Your task to perform on an android device: delete browsing data in the chrome app Image 0: 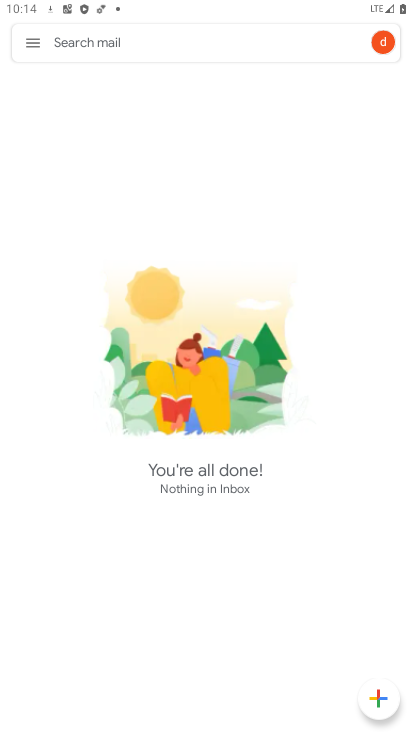
Step 0: press home button
Your task to perform on an android device: delete browsing data in the chrome app Image 1: 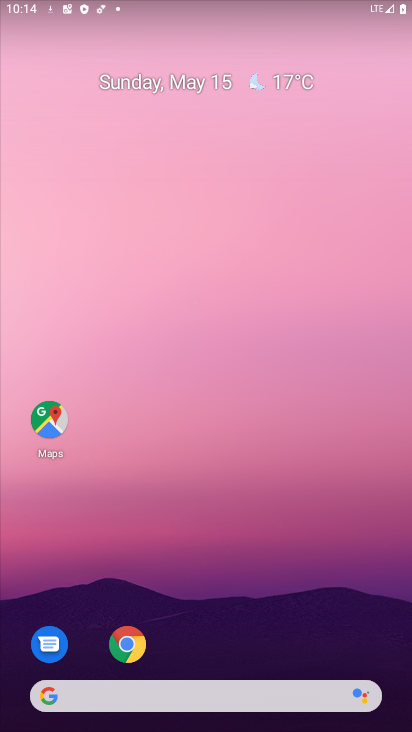
Step 1: drag from (275, 708) to (193, 222)
Your task to perform on an android device: delete browsing data in the chrome app Image 2: 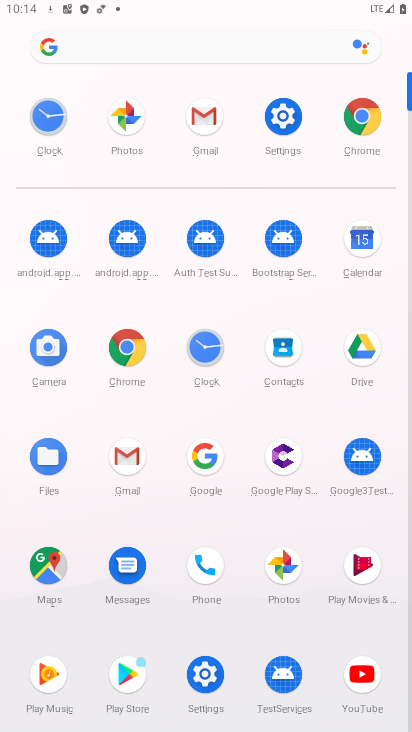
Step 2: click (115, 337)
Your task to perform on an android device: delete browsing data in the chrome app Image 3: 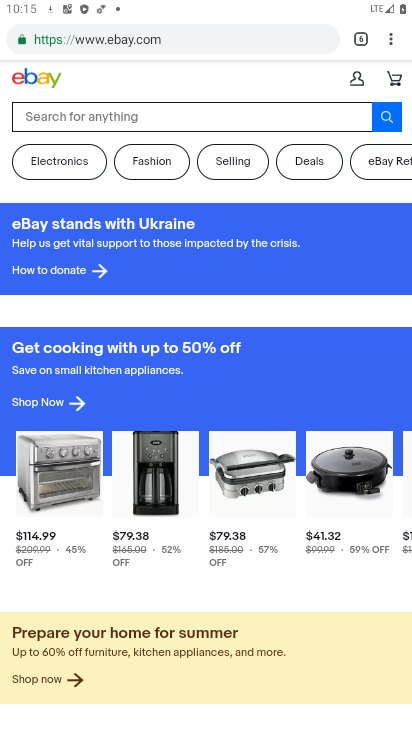
Step 3: click (384, 39)
Your task to perform on an android device: delete browsing data in the chrome app Image 4: 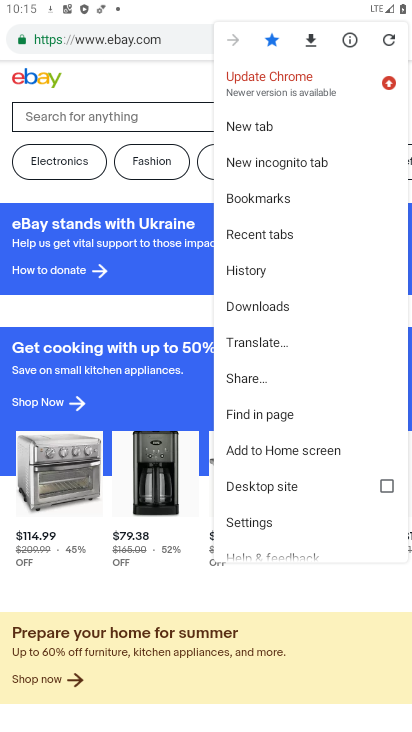
Step 4: click (257, 515)
Your task to perform on an android device: delete browsing data in the chrome app Image 5: 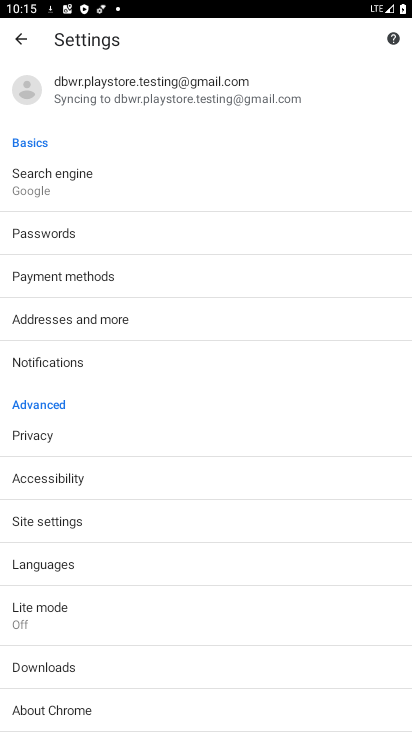
Step 5: click (77, 443)
Your task to perform on an android device: delete browsing data in the chrome app Image 6: 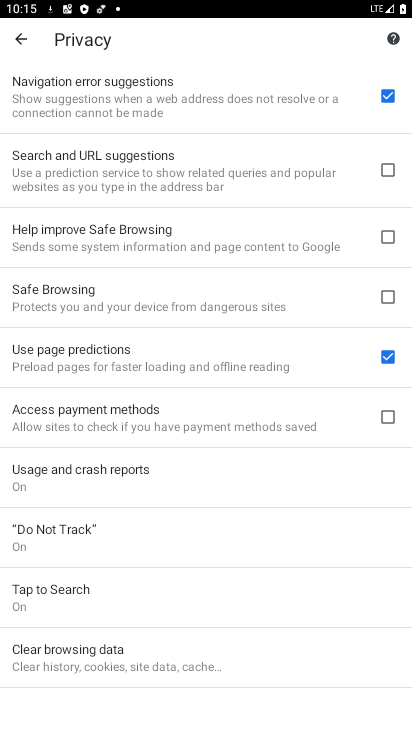
Step 6: drag from (145, 529) to (172, 385)
Your task to perform on an android device: delete browsing data in the chrome app Image 7: 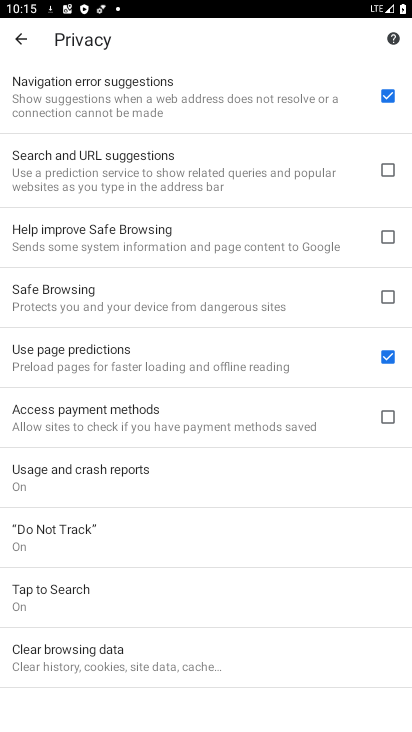
Step 7: click (98, 669)
Your task to perform on an android device: delete browsing data in the chrome app Image 8: 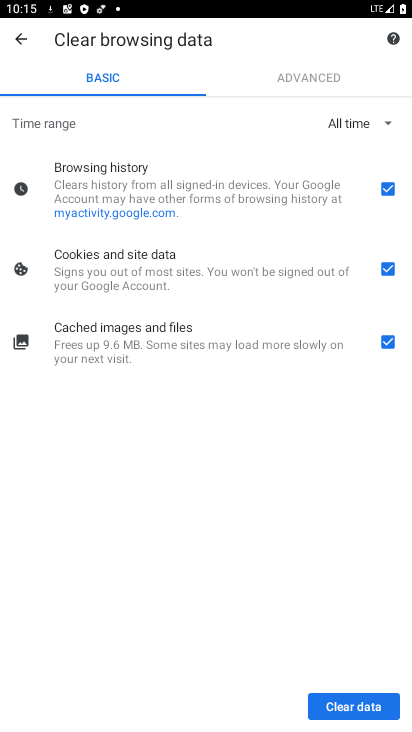
Step 8: click (369, 710)
Your task to perform on an android device: delete browsing data in the chrome app Image 9: 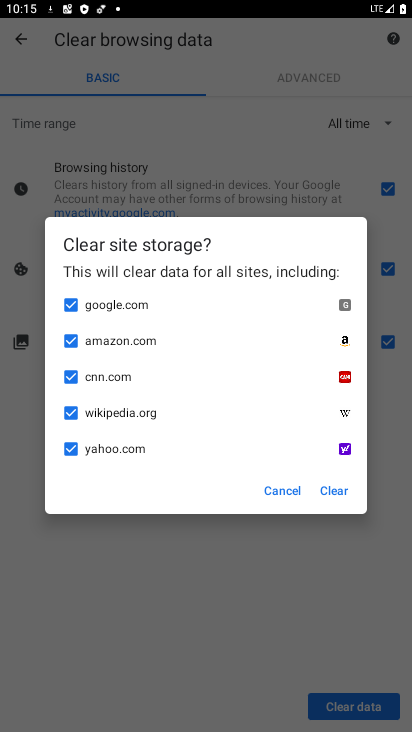
Step 9: task complete